Your task to perform on an android device: Show me recent news Image 0: 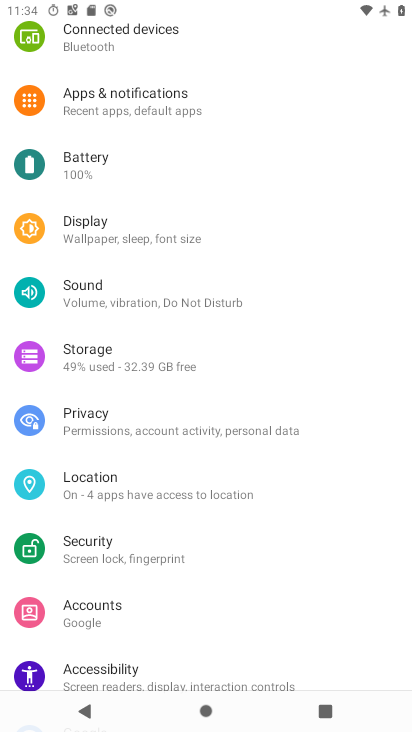
Step 0: press home button
Your task to perform on an android device: Show me recent news Image 1: 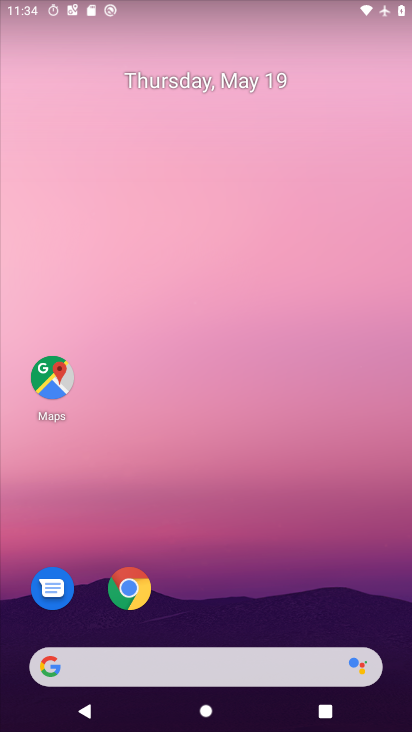
Step 1: click (55, 669)
Your task to perform on an android device: Show me recent news Image 2: 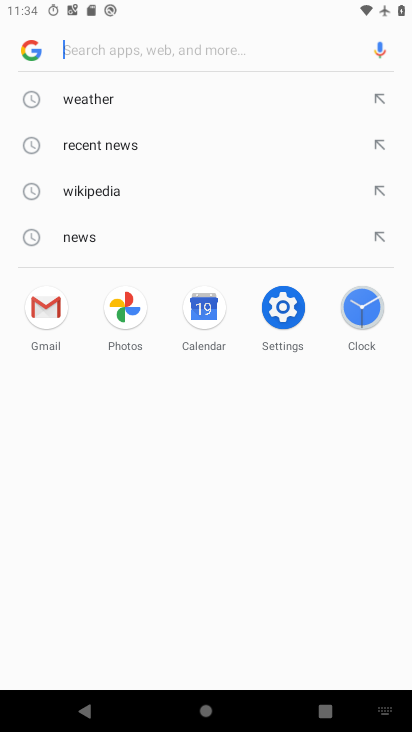
Step 2: click (94, 140)
Your task to perform on an android device: Show me recent news Image 3: 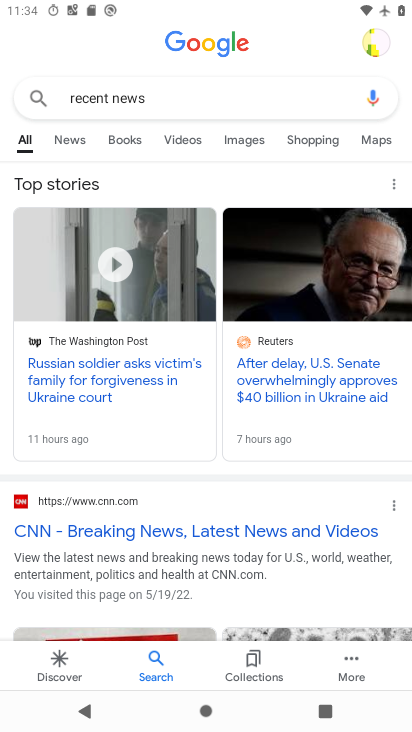
Step 3: click (84, 136)
Your task to perform on an android device: Show me recent news Image 4: 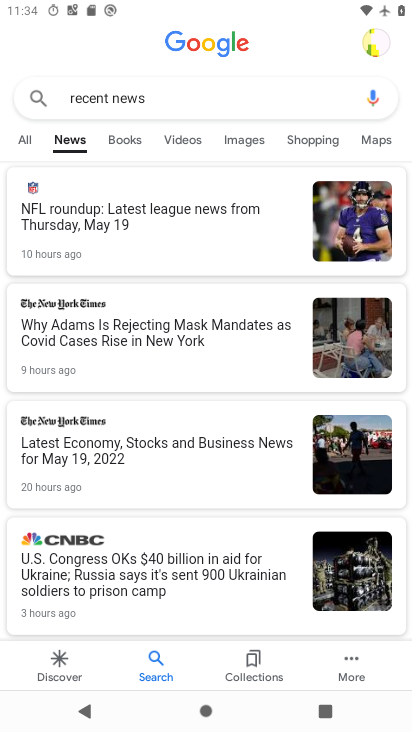
Step 4: task complete